Your task to perform on an android device: What's the weather? Image 0: 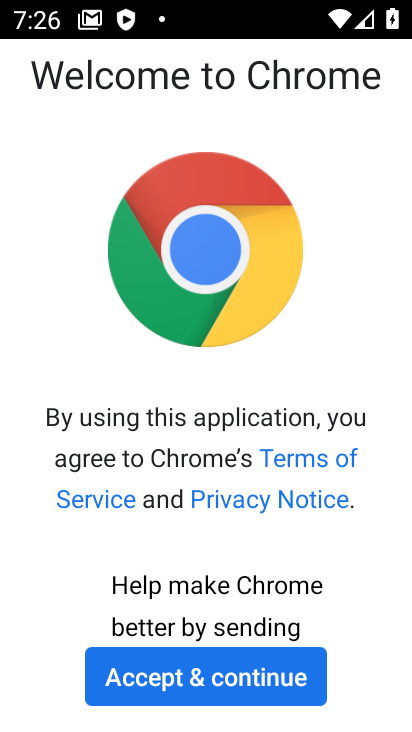
Step 0: press back button
Your task to perform on an android device: What's the weather? Image 1: 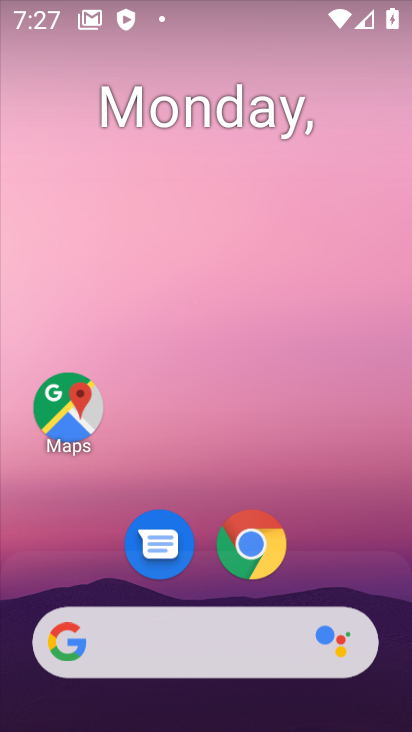
Step 1: drag from (340, 551) to (235, 6)
Your task to perform on an android device: What's the weather? Image 2: 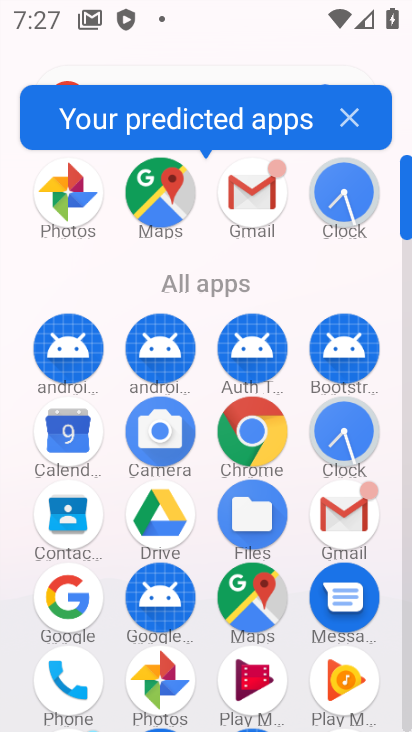
Step 2: drag from (200, 457) to (207, 237)
Your task to perform on an android device: What's the weather? Image 3: 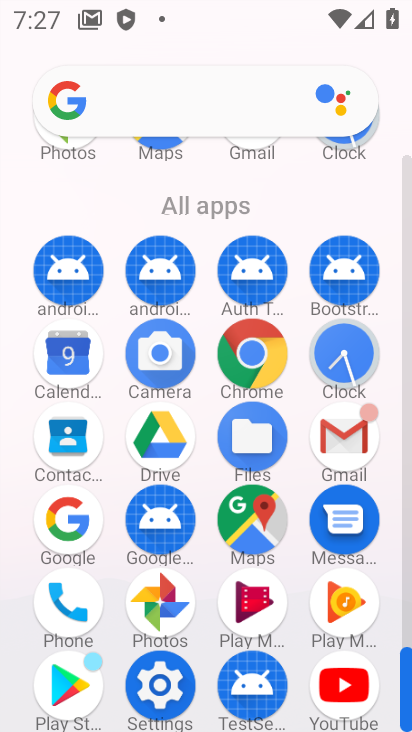
Step 3: click (61, 519)
Your task to perform on an android device: What's the weather? Image 4: 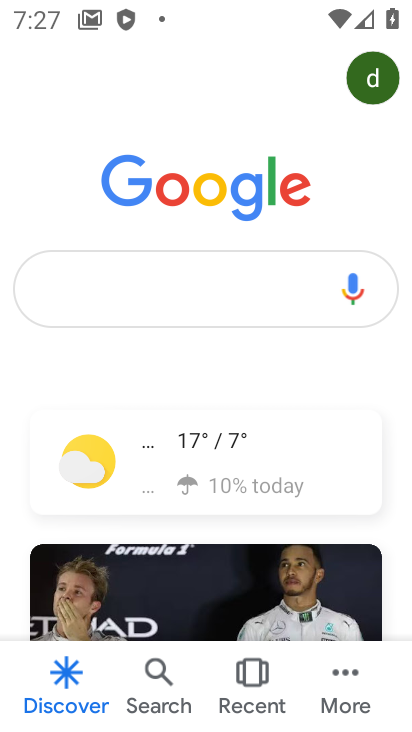
Step 4: click (125, 289)
Your task to perform on an android device: What's the weather? Image 5: 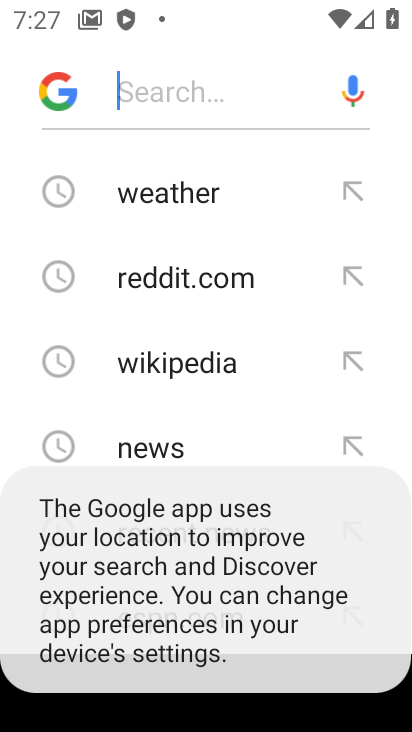
Step 5: click (168, 202)
Your task to perform on an android device: What's the weather? Image 6: 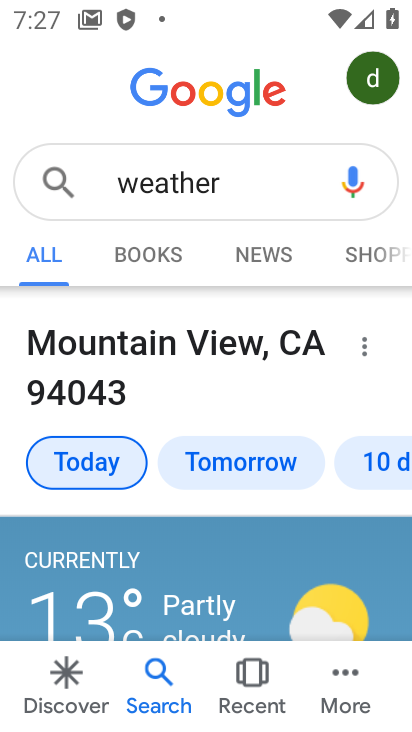
Step 6: task complete